Your task to perform on an android device: toggle translation in the chrome app Image 0: 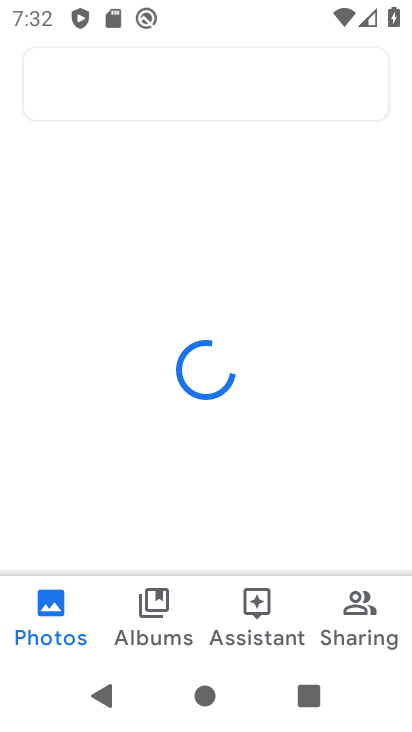
Step 0: press home button
Your task to perform on an android device: toggle translation in the chrome app Image 1: 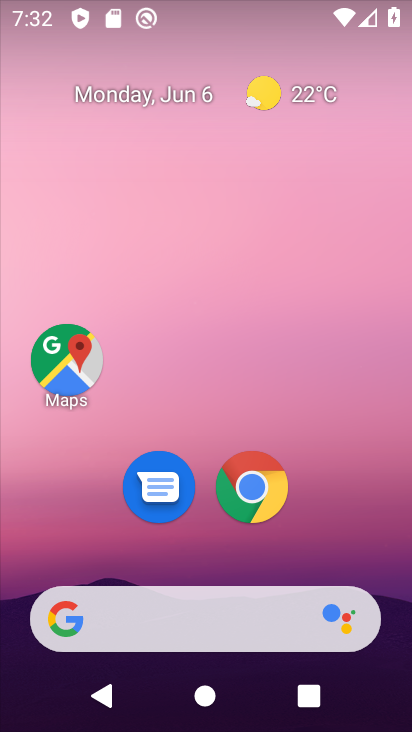
Step 1: click (269, 484)
Your task to perform on an android device: toggle translation in the chrome app Image 2: 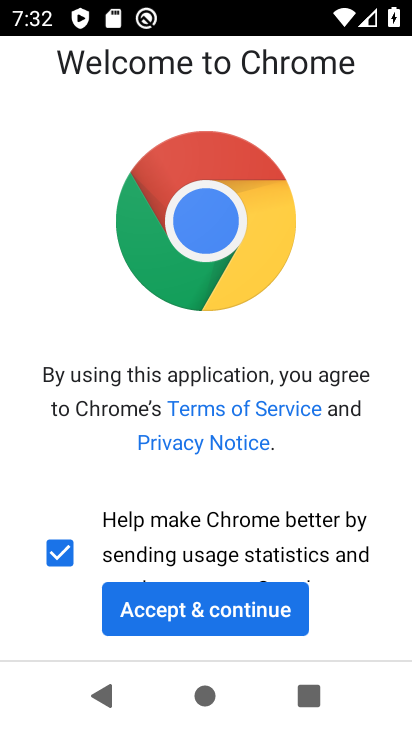
Step 2: click (261, 591)
Your task to perform on an android device: toggle translation in the chrome app Image 3: 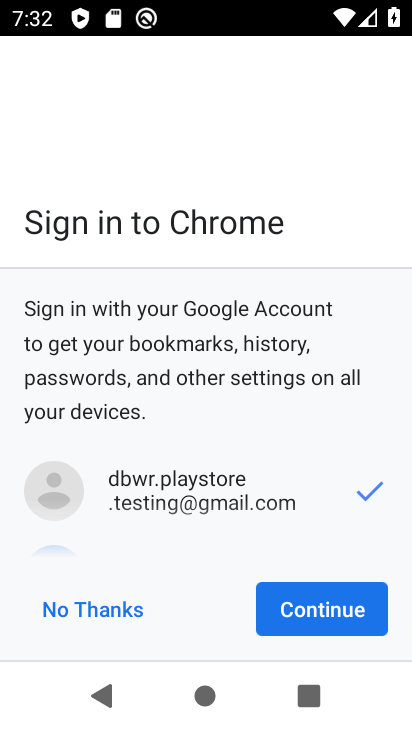
Step 3: click (327, 619)
Your task to perform on an android device: toggle translation in the chrome app Image 4: 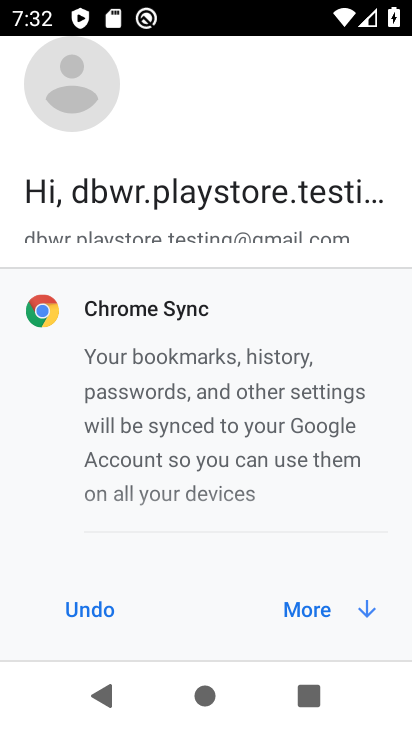
Step 4: click (335, 608)
Your task to perform on an android device: toggle translation in the chrome app Image 5: 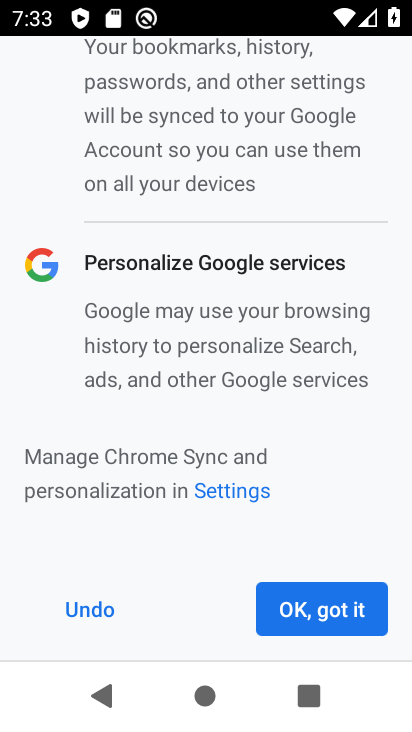
Step 5: click (332, 605)
Your task to perform on an android device: toggle translation in the chrome app Image 6: 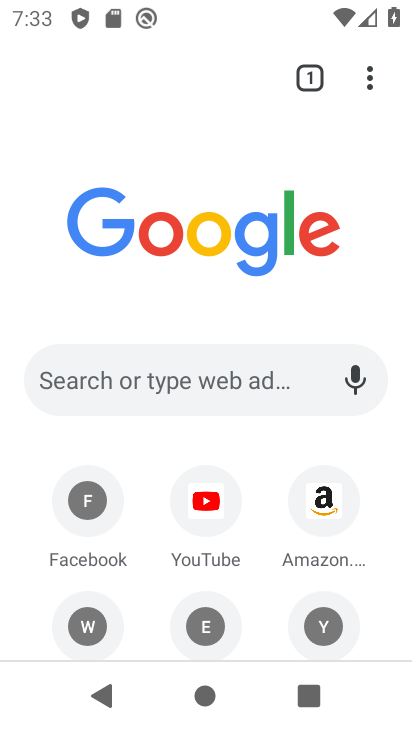
Step 6: drag from (379, 93) to (206, 557)
Your task to perform on an android device: toggle translation in the chrome app Image 7: 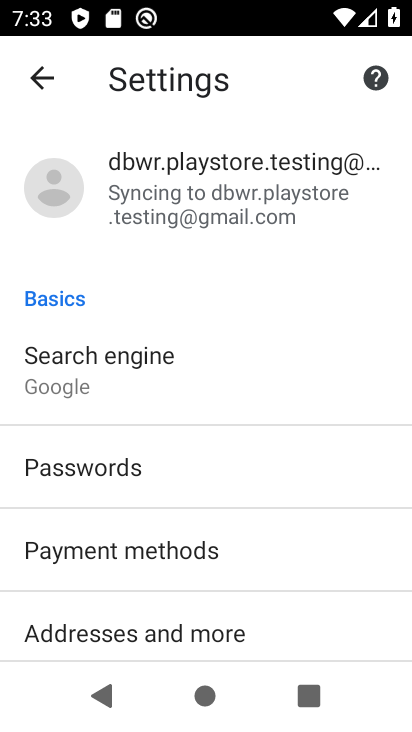
Step 7: drag from (302, 597) to (318, 294)
Your task to perform on an android device: toggle translation in the chrome app Image 8: 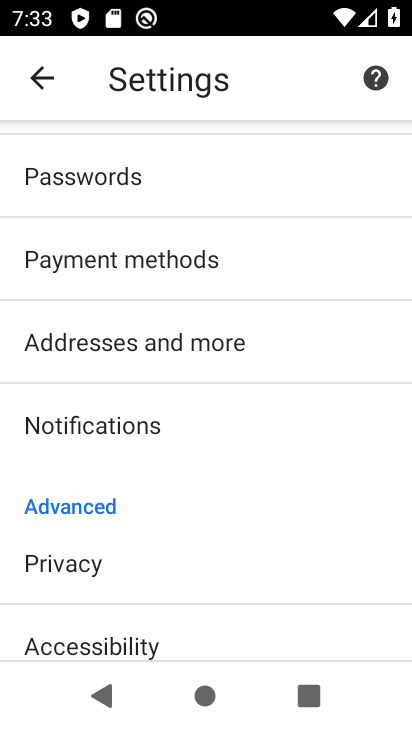
Step 8: drag from (293, 618) to (316, 385)
Your task to perform on an android device: toggle translation in the chrome app Image 9: 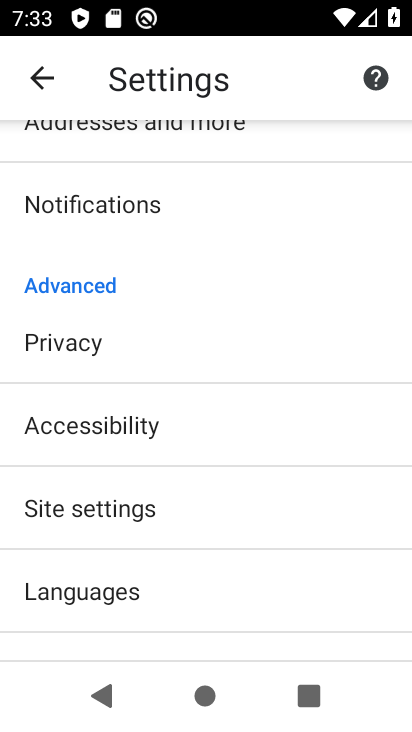
Step 9: click (228, 592)
Your task to perform on an android device: toggle translation in the chrome app Image 10: 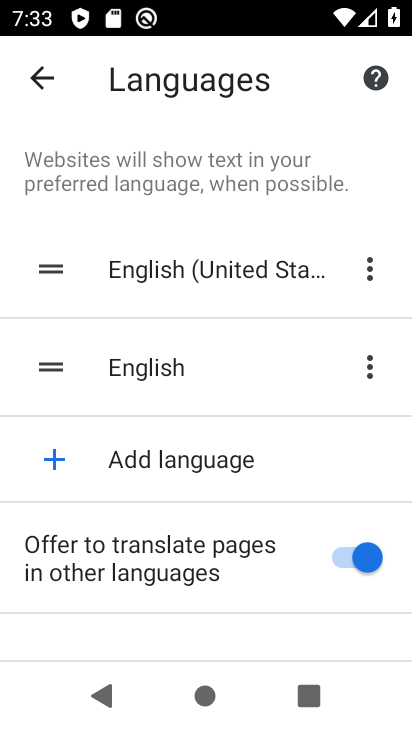
Step 10: click (342, 558)
Your task to perform on an android device: toggle translation in the chrome app Image 11: 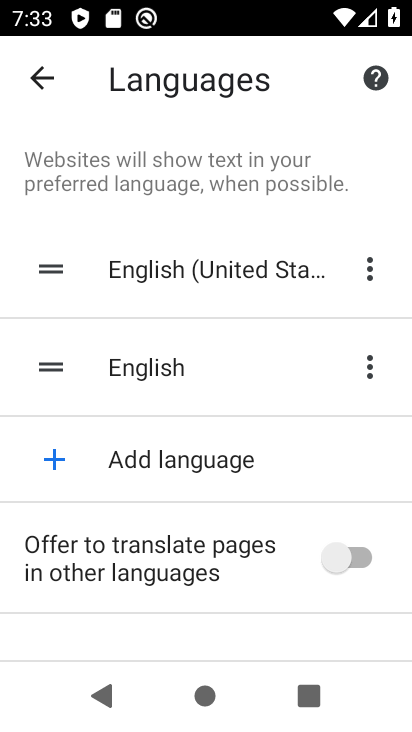
Step 11: task complete